Your task to perform on an android device: open app "Reddit" (install if not already installed) Image 0: 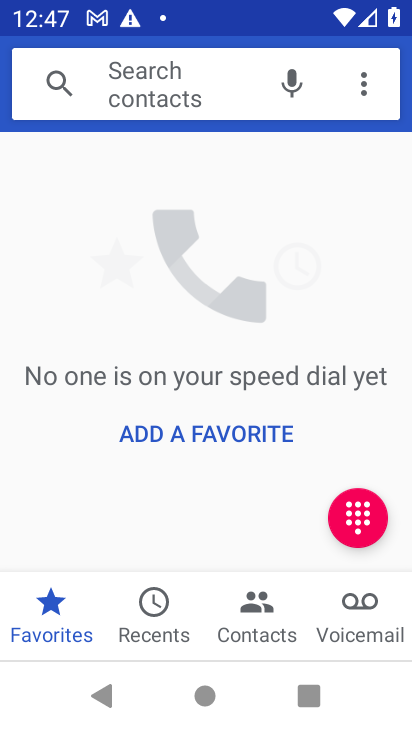
Step 0: press home button
Your task to perform on an android device: open app "Reddit" (install if not already installed) Image 1: 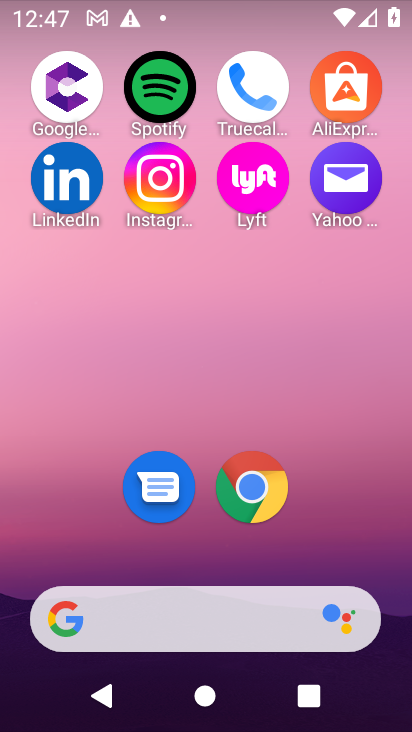
Step 1: drag from (165, 674) to (169, 85)
Your task to perform on an android device: open app "Reddit" (install if not already installed) Image 2: 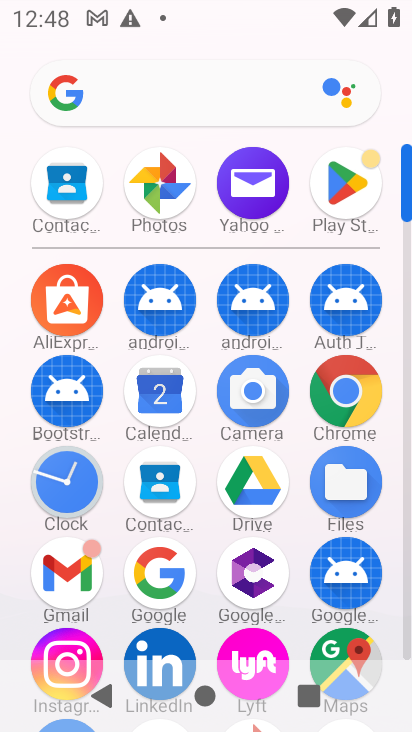
Step 2: click (340, 189)
Your task to perform on an android device: open app "Reddit" (install if not already installed) Image 3: 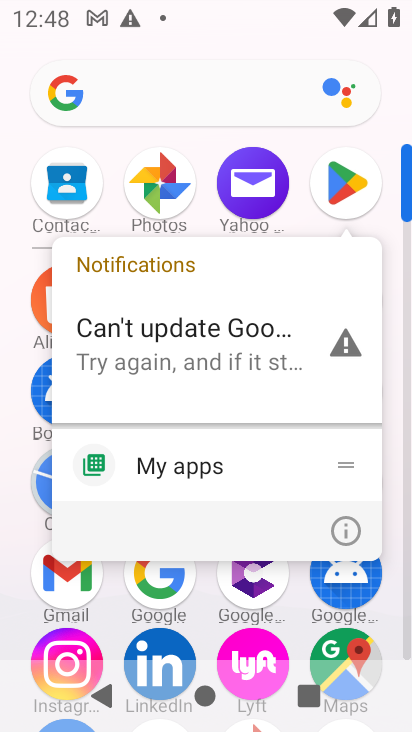
Step 3: click (340, 192)
Your task to perform on an android device: open app "Reddit" (install if not already installed) Image 4: 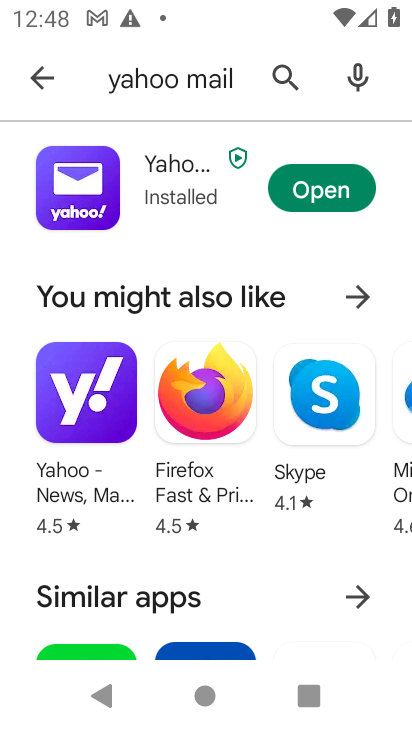
Step 4: click (41, 84)
Your task to perform on an android device: open app "Reddit" (install if not already installed) Image 5: 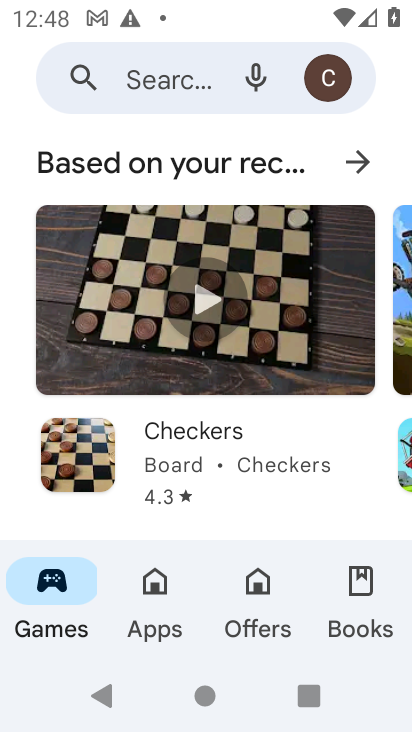
Step 5: click (93, 100)
Your task to perform on an android device: open app "Reddit" (install if not already installed) Image 6: 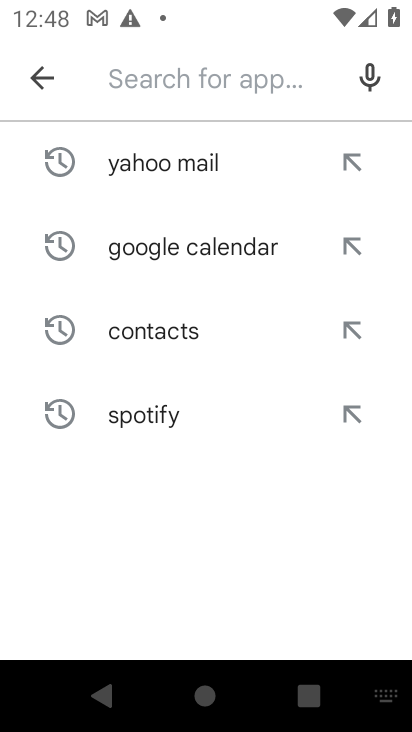
Step 6: type "Reddit"
Your task to perform on an android device: open app "Reddit" (install if not already installed) Image 7: 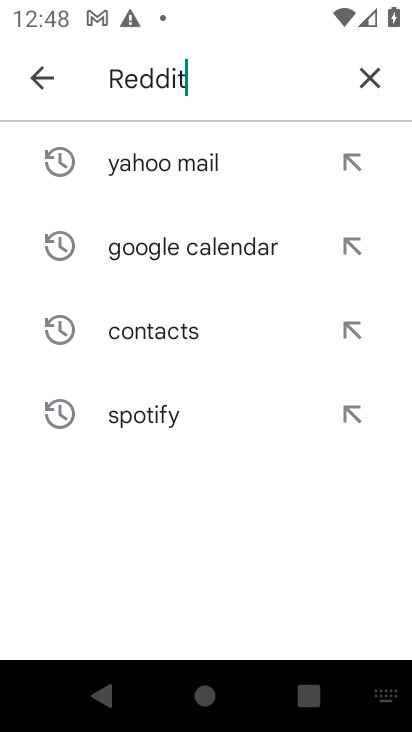
Step 7: type ""
Your task to perform on an android device: open app "Reddit" (install if not already installed) Image 8: 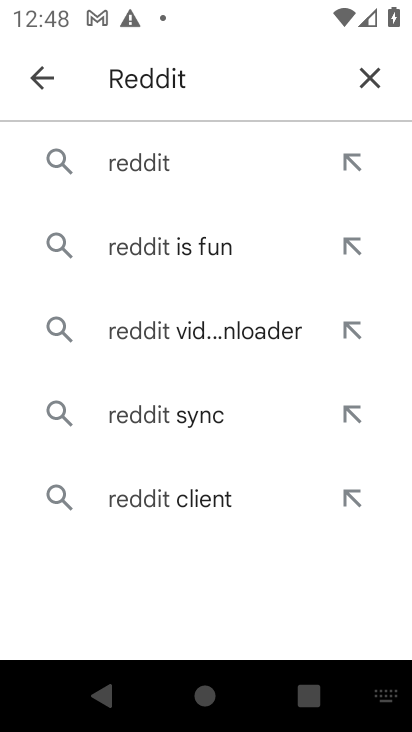
Step 8: click (212, 159)
Your task to perform on an android device: open app "Reddit" (install if not already installed) Image 9: 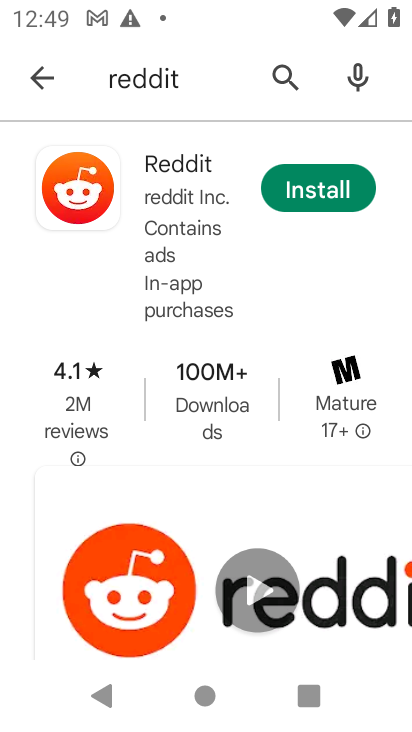
Step 9: click (293, 195)
Your task to perform on an android device: open app "Reddit" (install if not already installed) Image 10: 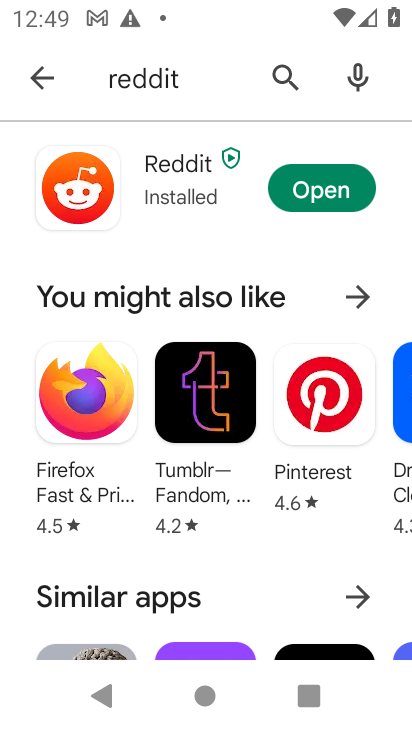
Step 10: click (335, 171)
Your task to perform on an android device: open app "Reddit" (install if not already installed) Image 11: 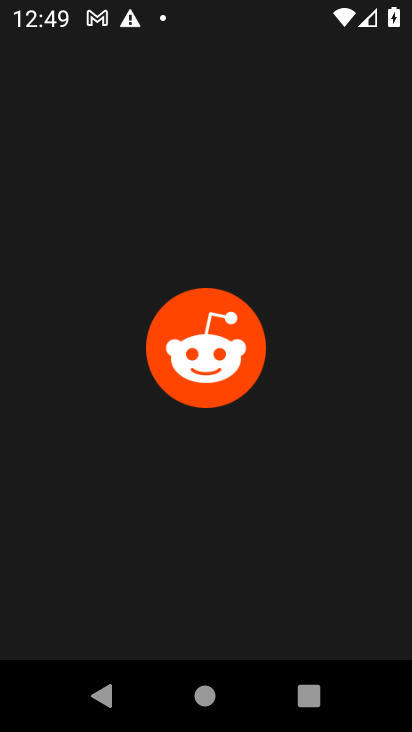
Step 11: task complete